Your task to perform on an android device: change timer sound Image 0: 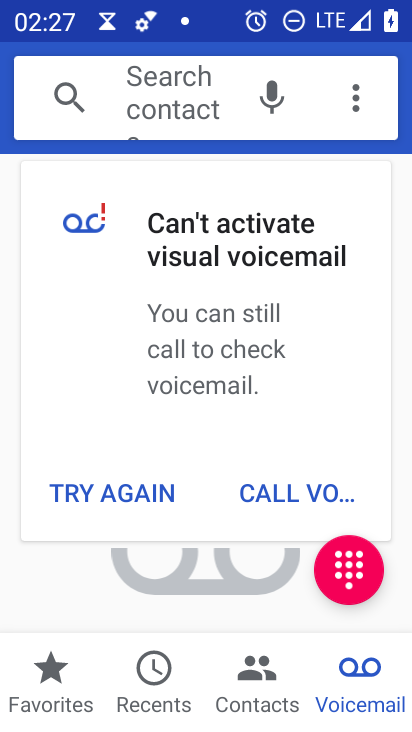
Step 0: press home button
Your task to perform on an android device: change timer sound Image 1: 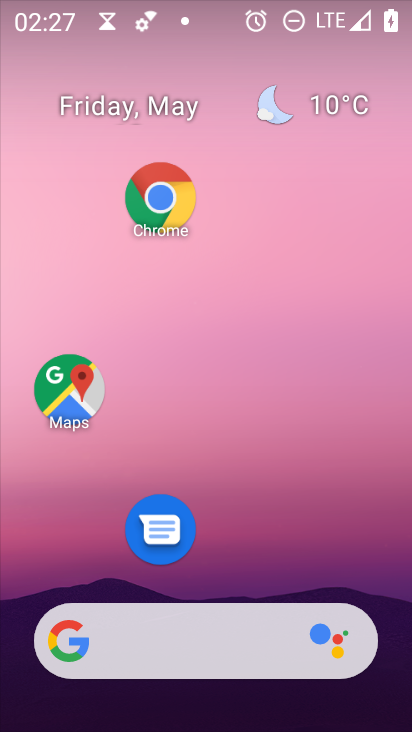
Step 1: drag from (259, 507) to (291, 180)
Your task to perform on an android device: change timer sound Image 2: 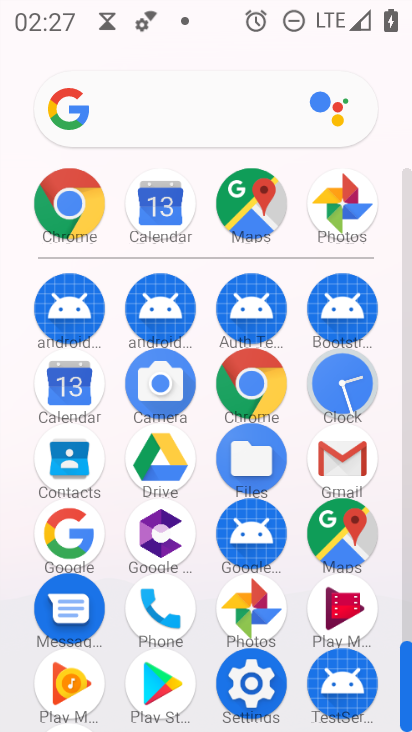
Step 2: click (336, 374)
Your task to perform on an android device: change timer sound Image 3: 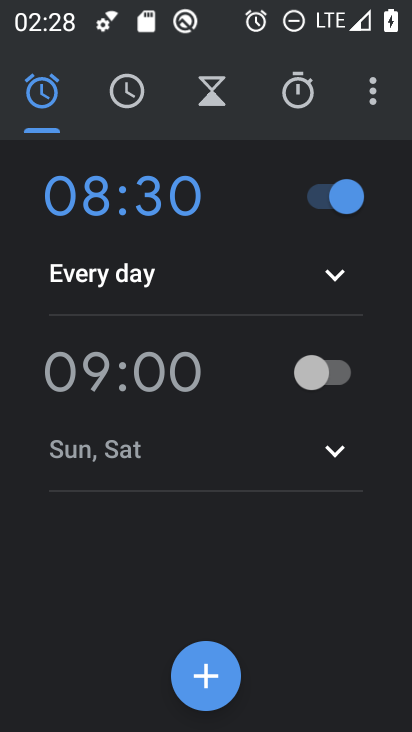
Step 3: click (371, 97)
Your task to perform on an android device: change timer sound Image 4: 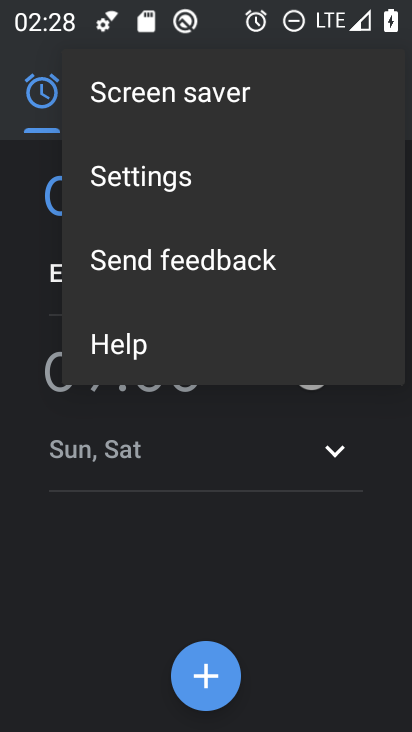
Step 4: click (193, 193)
Your task to perform on an android device: change timer sound Image 5: 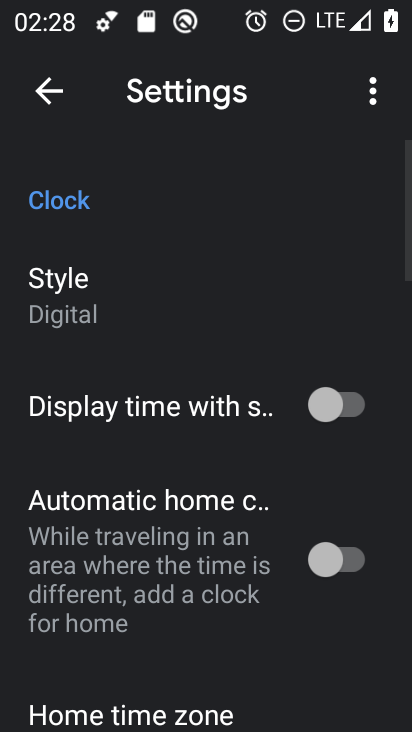
Step 5: drag from (217, 458) to (216, 103)
Your task to perform on an android device: change timer sound Image 6: 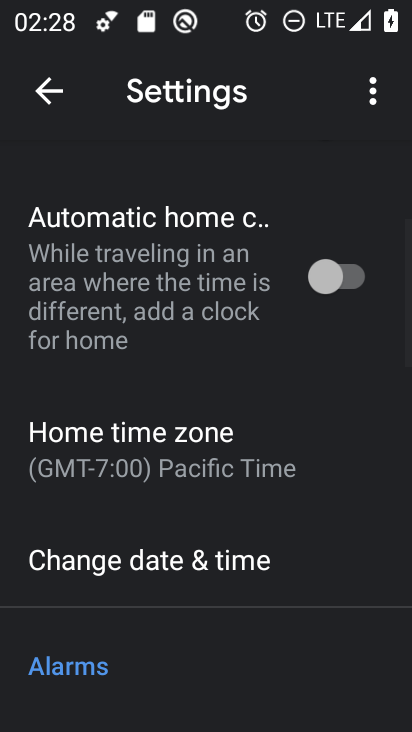
Step 6: drag from (72, 614) to (197, 163)
Your task to perform on an android device: change timer sound Image 7: 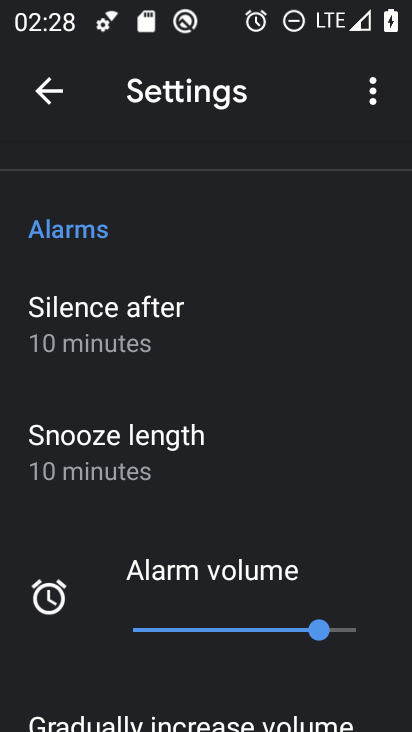
Step 7: drag from (142, 550) to (217, 188)
Your task to perform on an android device: change timer sound Image 8: 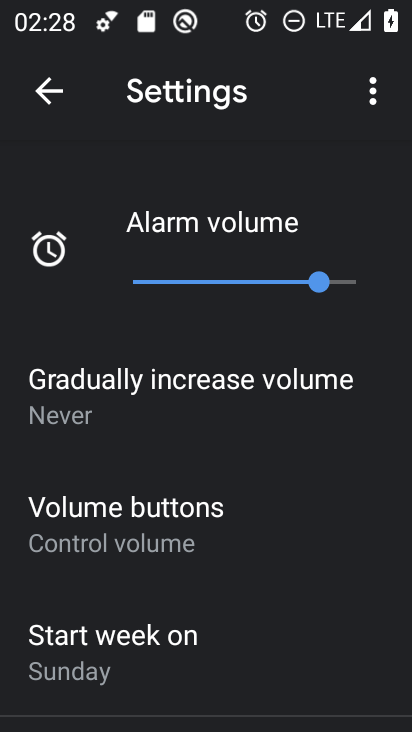
Step 8: drag from (158, 186) to (106, 613)
Your task to perform on an android device: change timer sound Image 9: 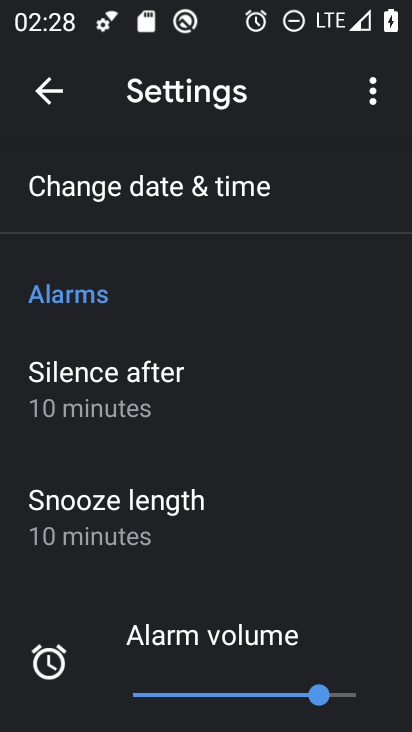
Step 9: drag from (105, 609) to (103, 524)
Your task to perform on an android device: change timer sound Image 10: 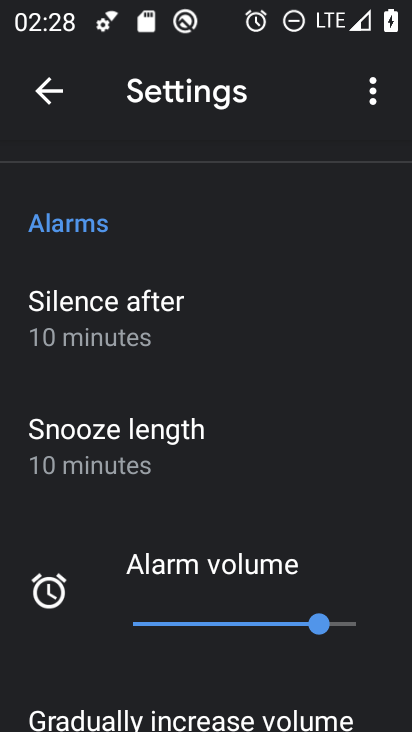
Step 10: drag from (190, 218) to (184, 611)
Your task to perform on an android device: change timer sound Image 11: 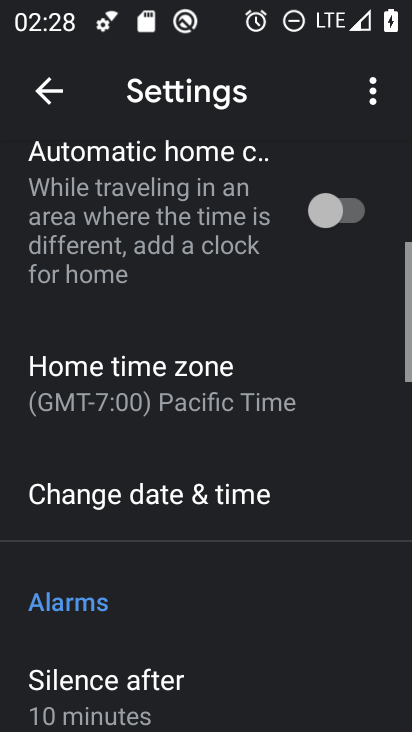
Step 11: drag from (170, 244) to (163, 561)
Your task to perform on an android device: change timer sound Image 12: 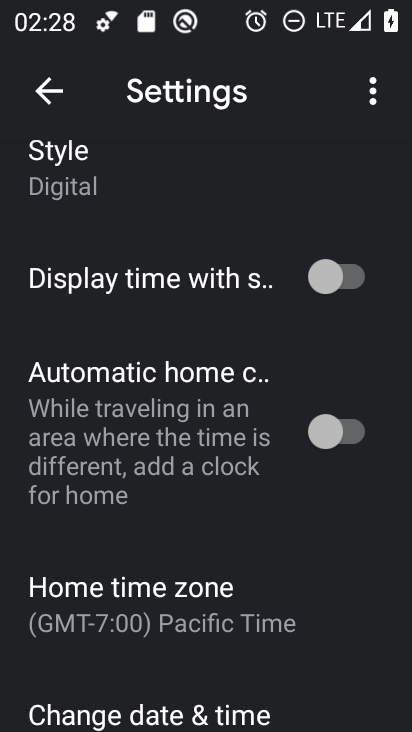
Step 12: drag from (163, 557) to (162, 495)
Your task to perform on an android device: change timer sound Image 13: 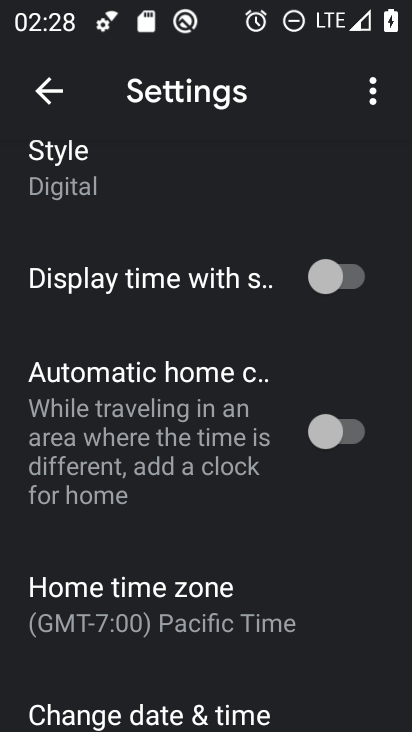
Step 13: drag from (136, 418) to (197, 197)
Your task to perform on an android device: change timer sound Image 14: 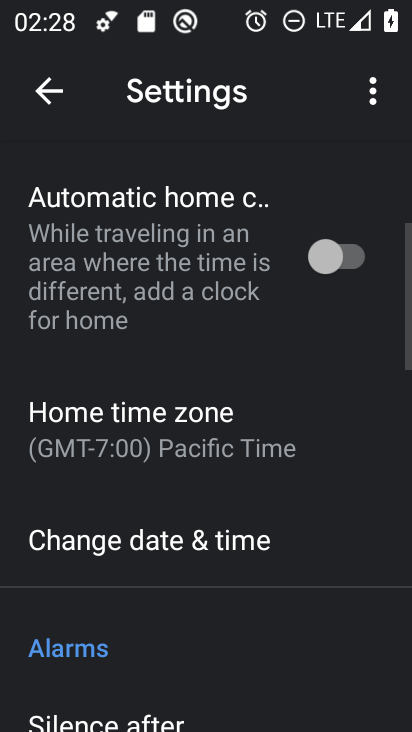
Step 14: drag from (161, 575) to (231, 9)
Your task to perform on an android device: change timer sound Image 15: 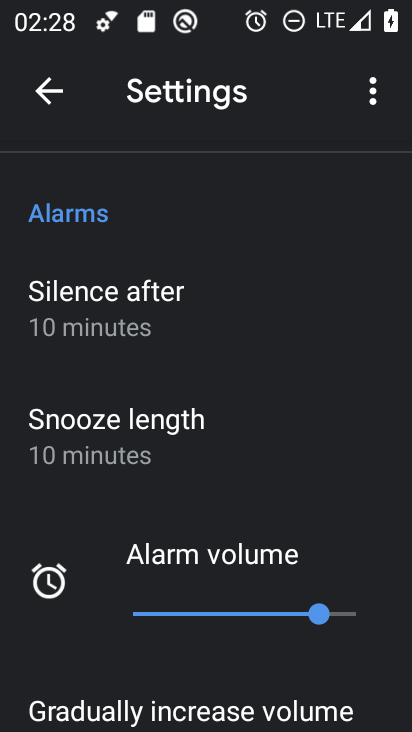
Step 15: click (164, 438)
Your task to perform on an android device: change timer sound Image 16: 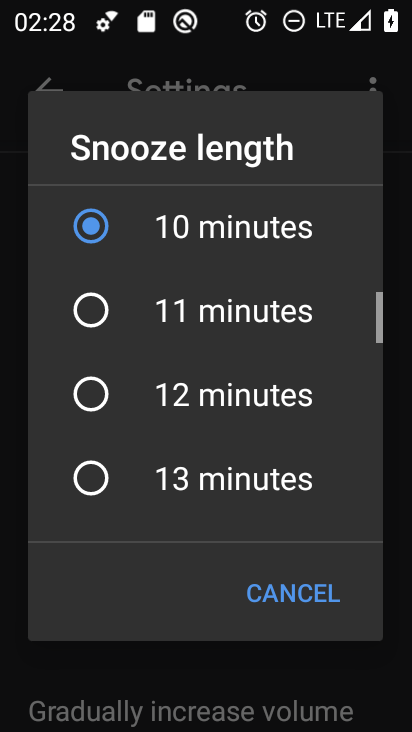
Step 16: click (272, 605)
Your task to perform on an android device: change timer sound Image 17: 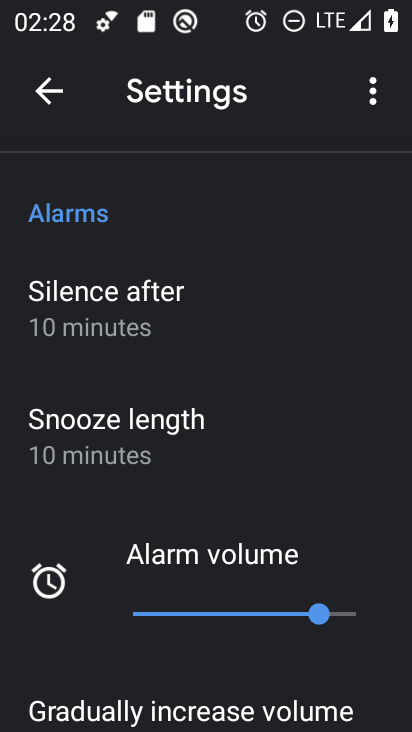
Step 17: drag from (183, 647) to (263, 160)
Your task to perform on an android device: change timer sound Image 18: 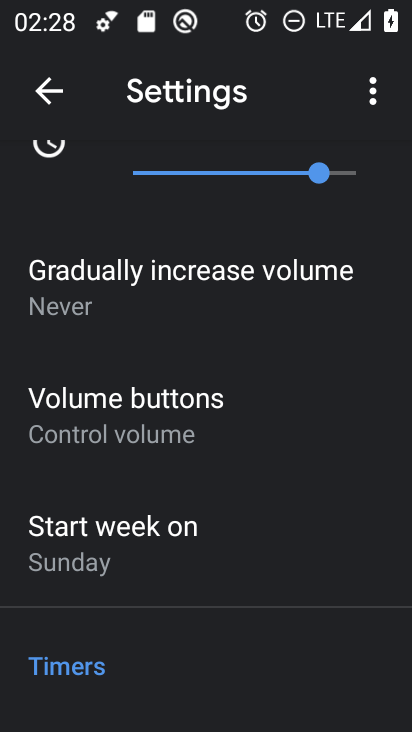
Step 18: click (93, 662)
Your task to perform on an android device: change timer sound Image 19: 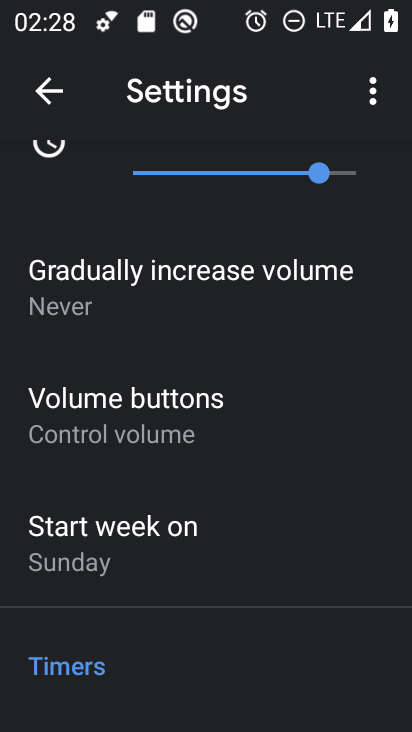
Step 19: click (138, 679)
Your task to perform on an android device: change timer sound Image 20: 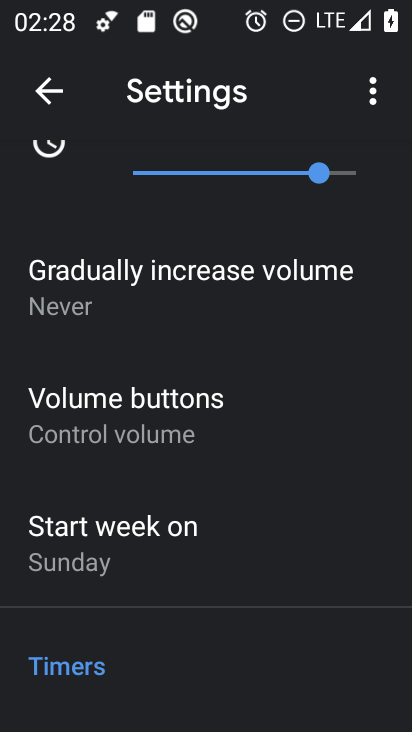
Step 20: drag from (182, 628) to (252, 283)
Your task to perform on an android device: change timer sound Image 21: 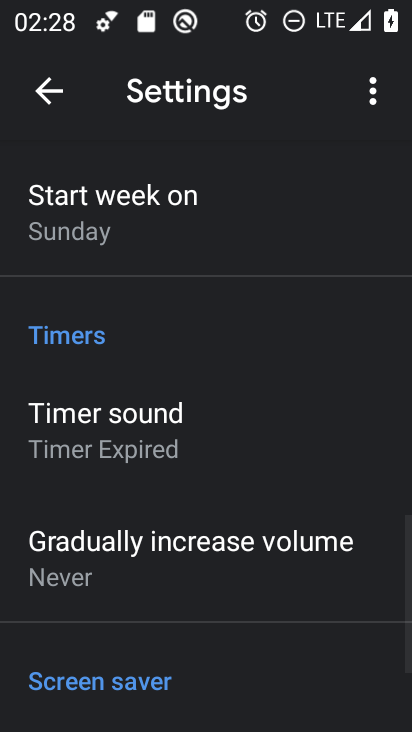
Step 21: click (128, 410)
Your task to perform on an android device: change timer sound Image 22: 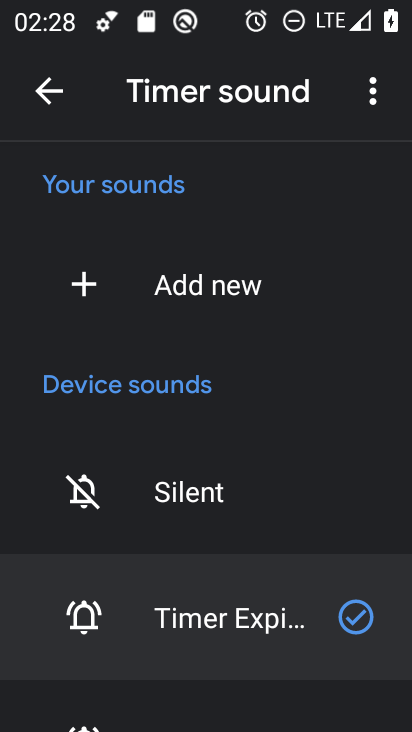
Step 22: click (180, 487)
Your task to perform on an android device: change timer sound Image 23: 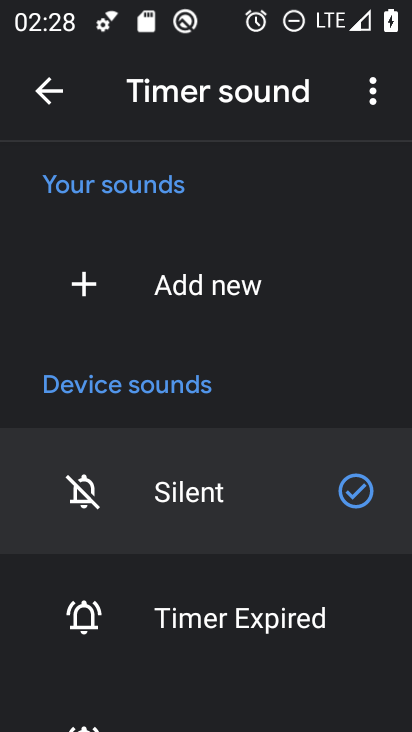
Step 23: task complete